Your task to perform on an android device: Go to Amazon Image 0: 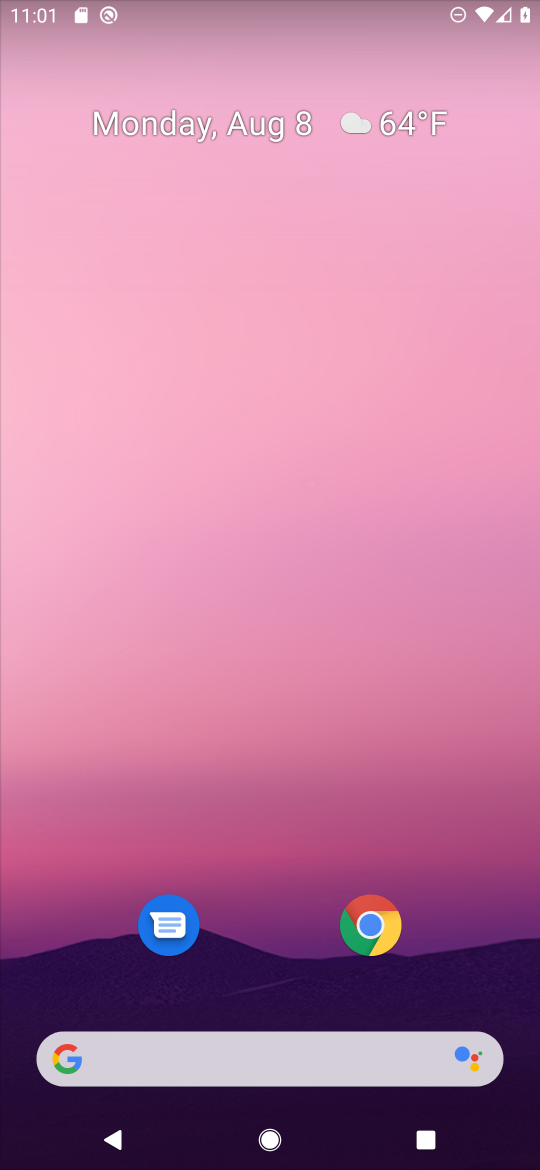
Step 0: drag from (235, 900) to (271, 101)
Your task to perform on an android device: Go to Amazon Image 1: 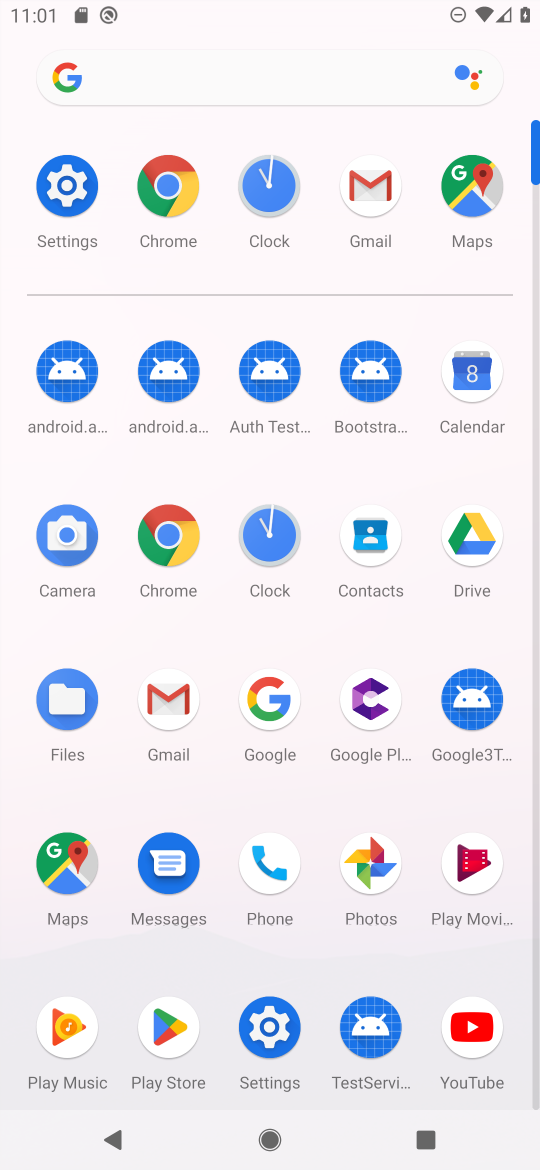
Step 1: click (154, 543)
Your task to perform on an android device: Go to Amazon Image 2: 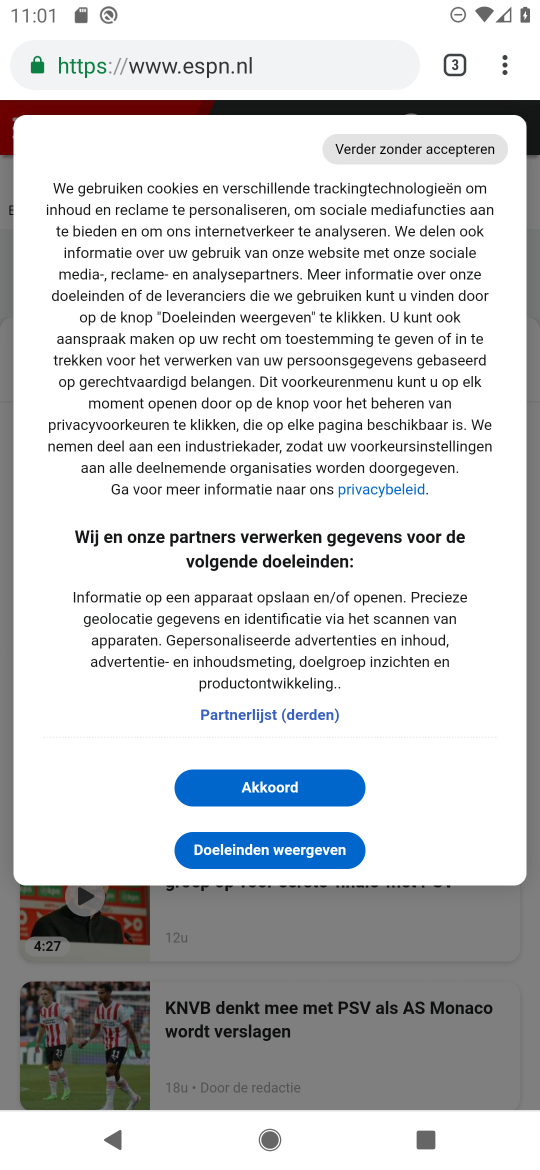
Step 2: click (241, 68)
Your task to perform on an android device: Go to Amazon Image 3: 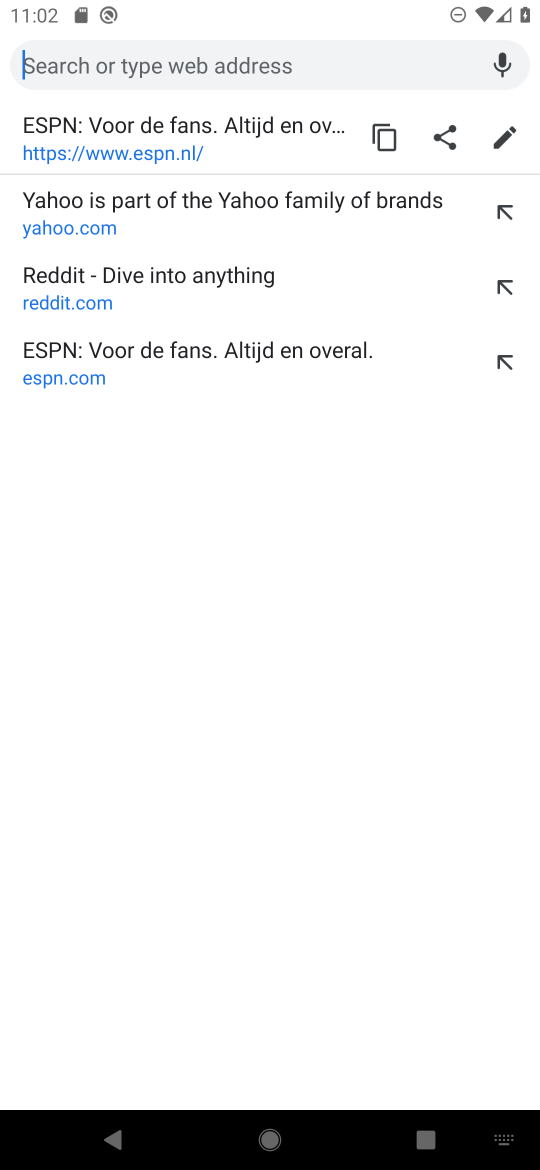
Step 3: type "amazon"
Your task to perform on an android device: Go to Amazon Image 4: 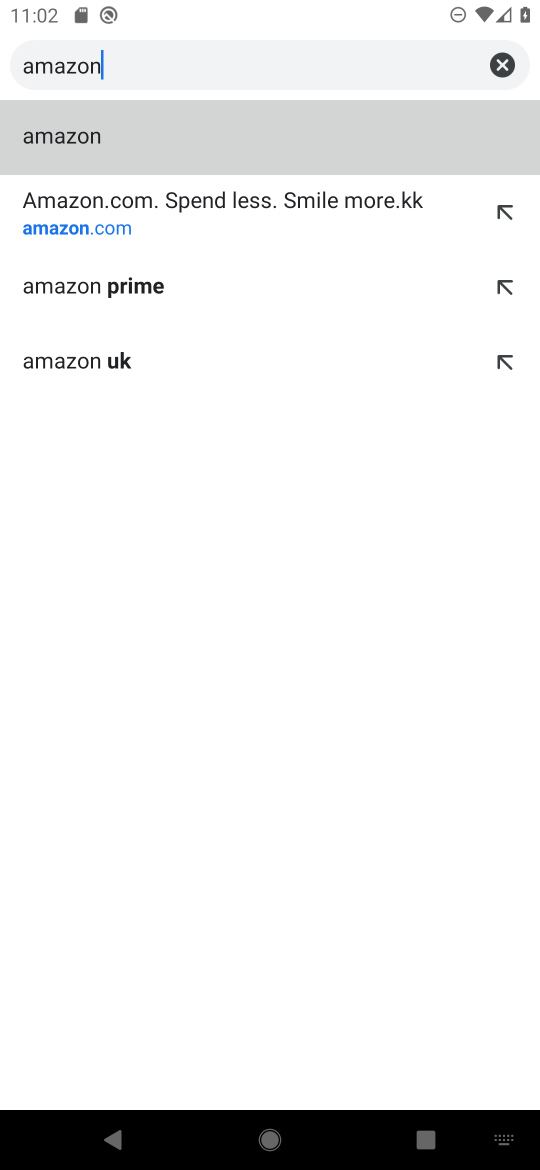
Step 4: click (40, 227)
Your task to perform on an android device: Go to Amazon Image 5: 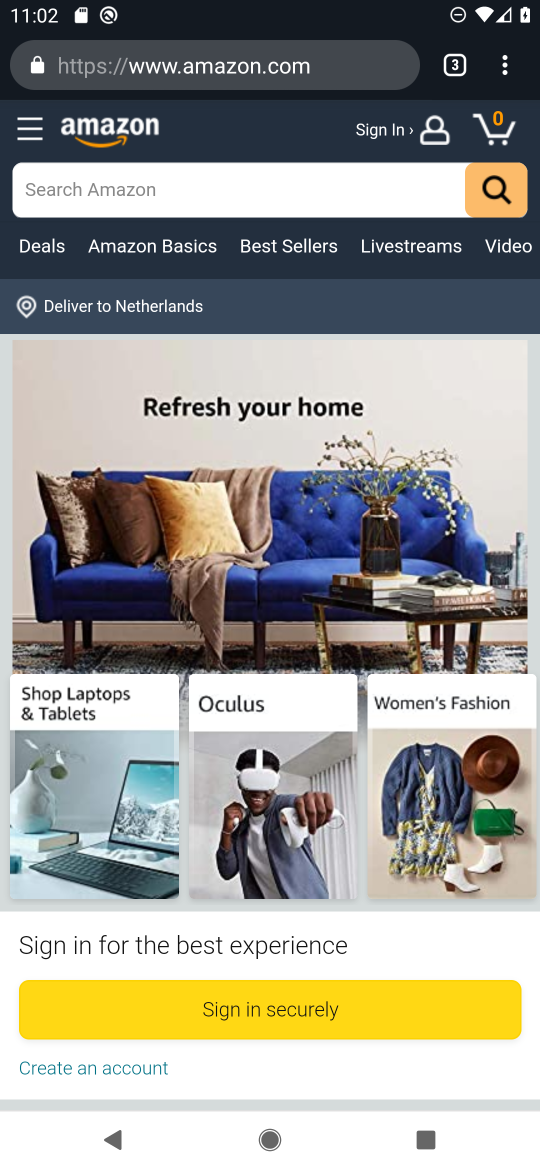
Step 5: task complete